Your task to perform on an android device: Go to Wikipedia Image 0: 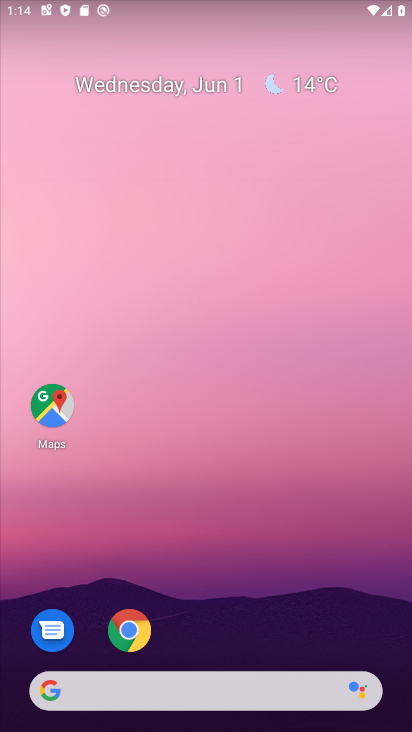
Step 0: click (126, 628)
Your task to perform on an android device: Go to Wikipedia Image 1: 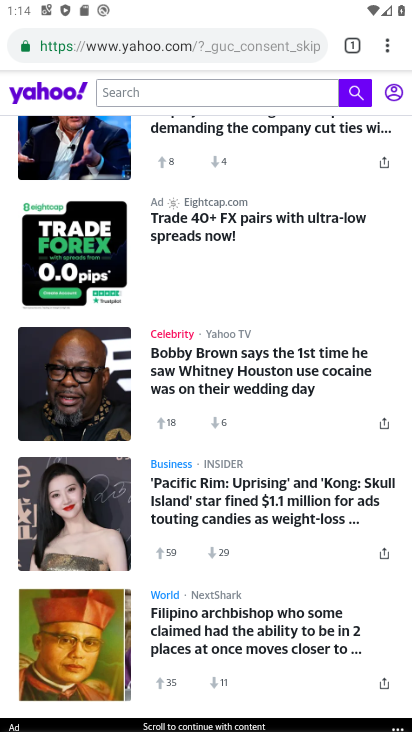
Step 1: click (349, 32)
Your task to perform on an android device: Go to Wikipedia Image 2: 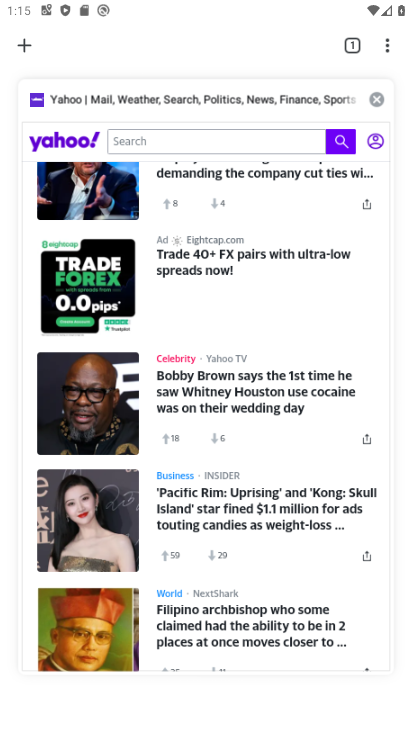
Step 2: click (376, 93)
Your task to perform on an android device: Go to Wikipedia Image 3: 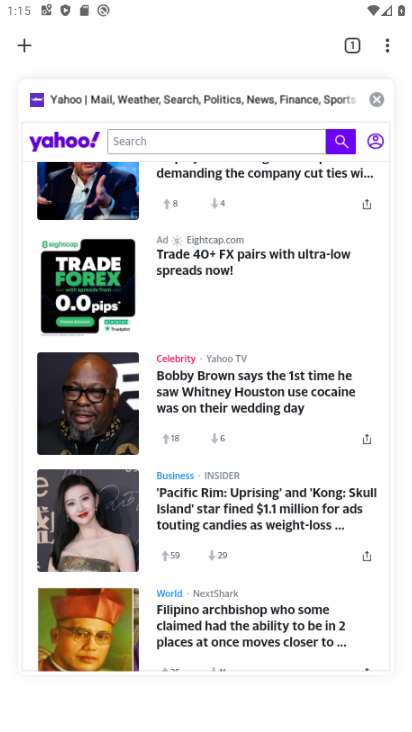
Step 3: click (373, 95)
Your task to perform on an android device: Go to Wikipedia Image 4: 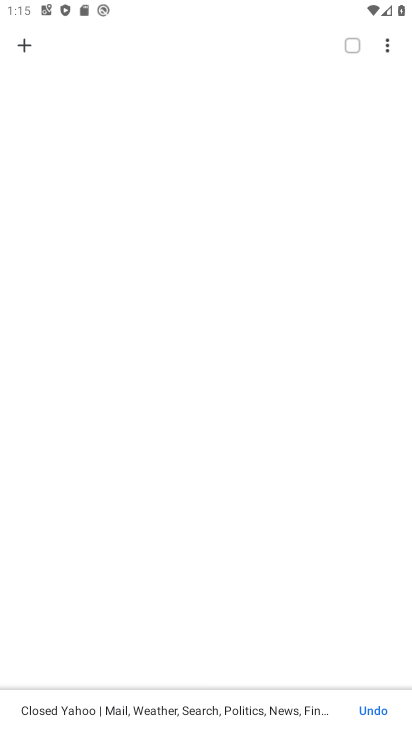
Step 4: click (24, 43)
Your task to perform on an android device: Go to Wikipedia Image 5: 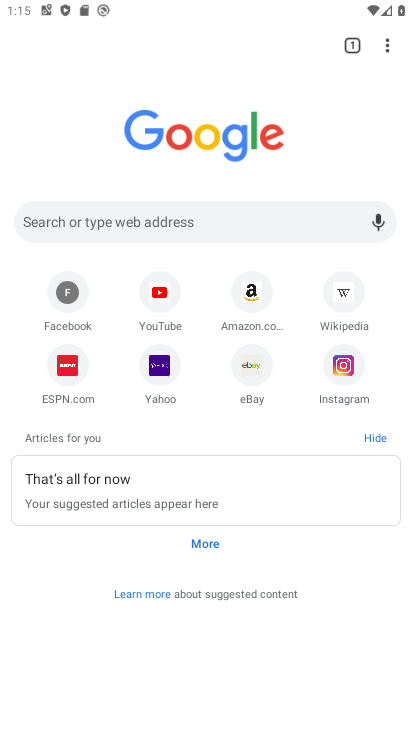
Step 5: click (346, 289)
Your task to perform on an android device: Go to Wikipedia Image 6: 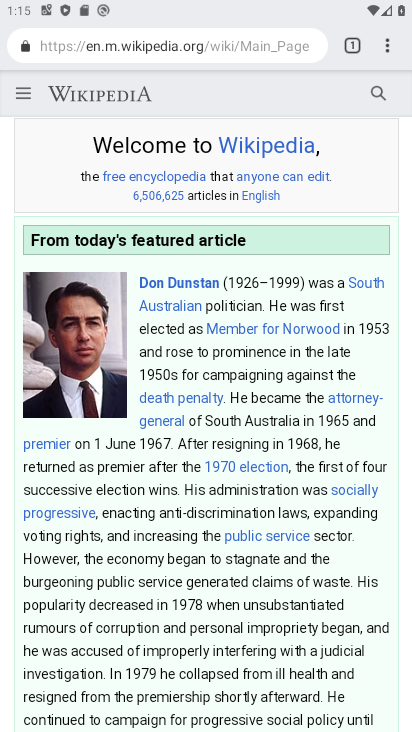
Step 6: task complete